Your task to perform on an android device: turn off location Image 0: 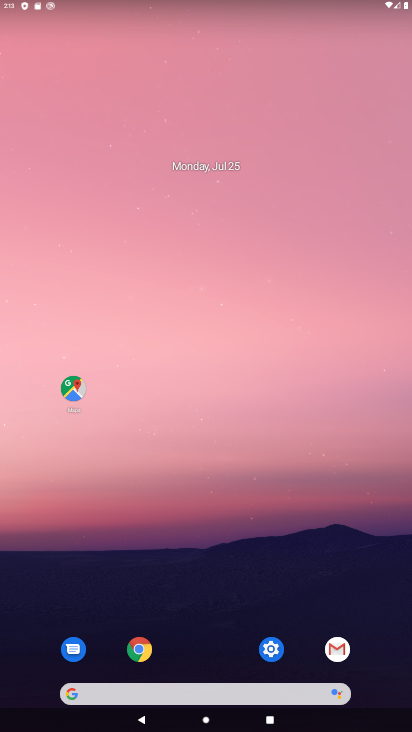
Step 0: click (273, 650)
Your task to perform on an android device: turn off location Image 1: 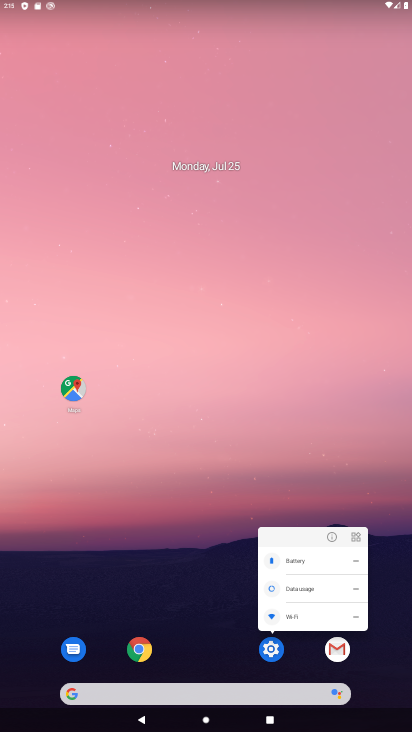
Step 1: click (265, 652)
Your task to perform on an android device: turn off location Image 2: 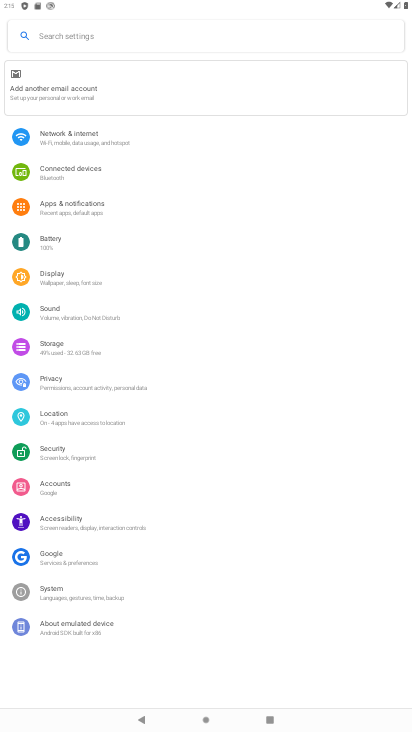
Step 2: click (60, 415)
Your task to perform on an android device: turn off location Image 3: 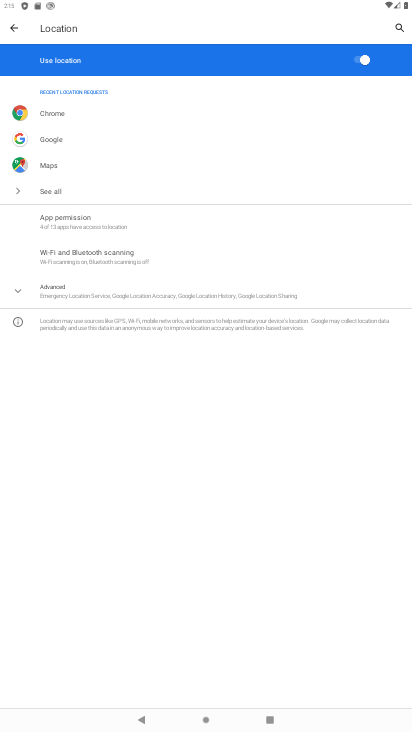
Step 3: task complete